Your task to perform on an android device: open device folders in google photos Image 0: 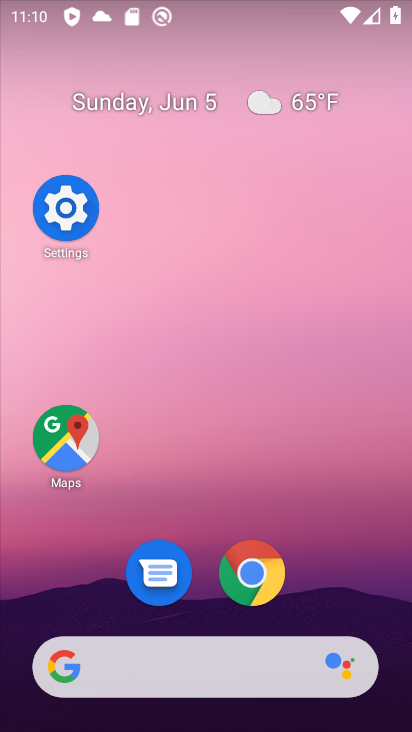
Step 0: drag from (330, 578) to (359, 146)
Your task to perform on an android device: open device folders in google photos Image 1: 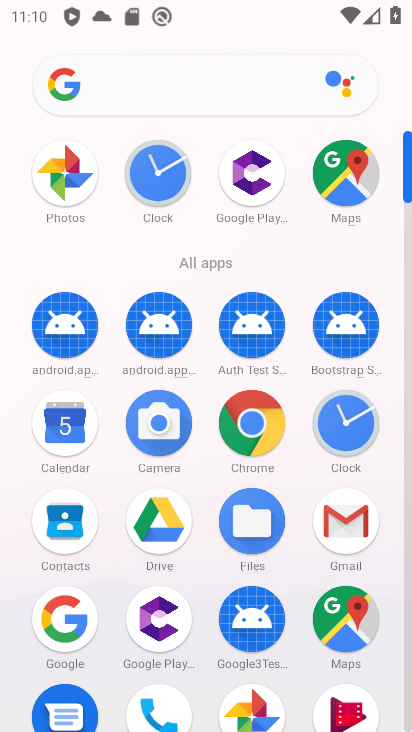
Step 1: click (68, 174)
Your task to perform on an android device: open device folders in google photos Image 2: 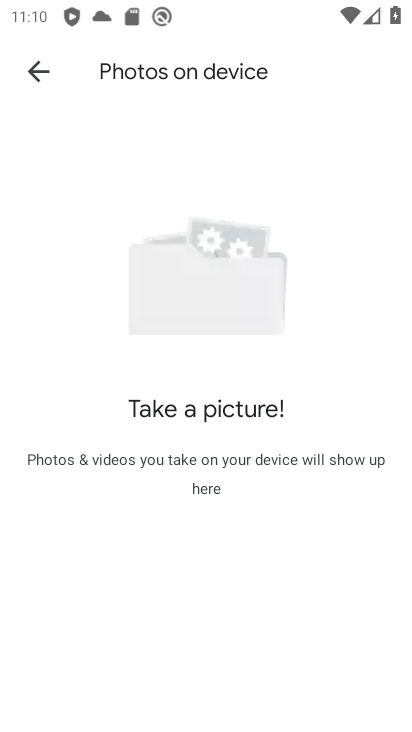
Step 2: click (32, 50)
Your task to perform on an android device: open device folders in google photos Image 3: 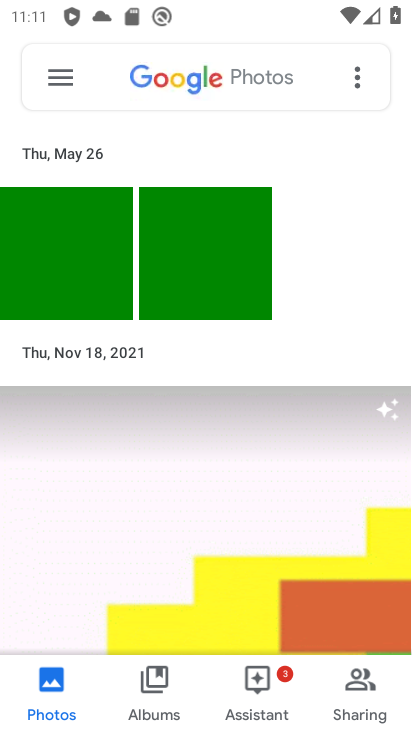
Step 3: click (51, 76)
Your task to perform on an android device: open device folders in google photos Image 4: 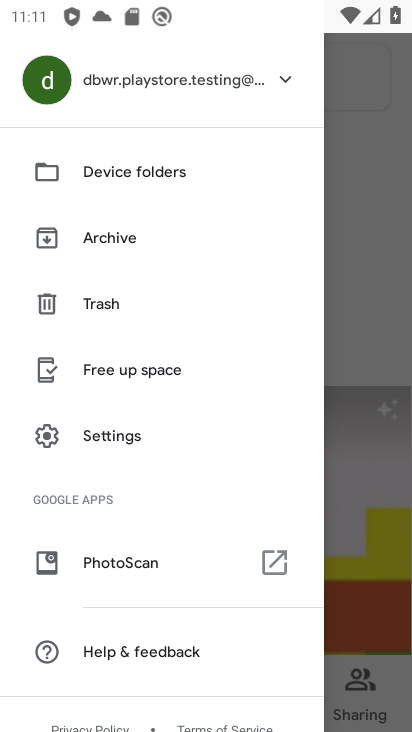
Step 4: click (166, 183)
Your task to perform on an android device: open device folders in google photos Image 5: 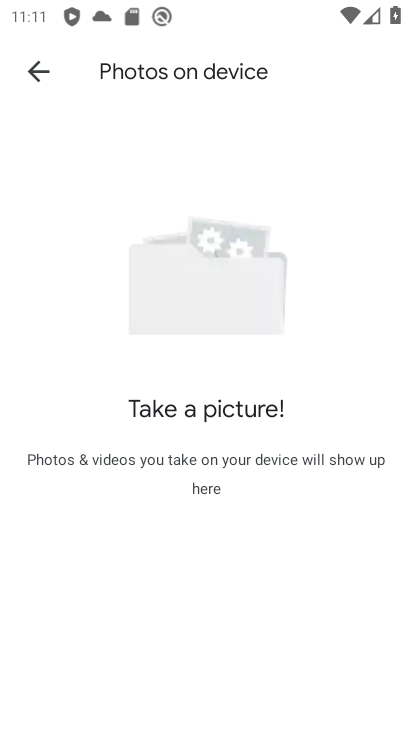
Step 5: task complete